Your task to perform on an android device: Open the phone app and click the voicemail tab. Image 0: 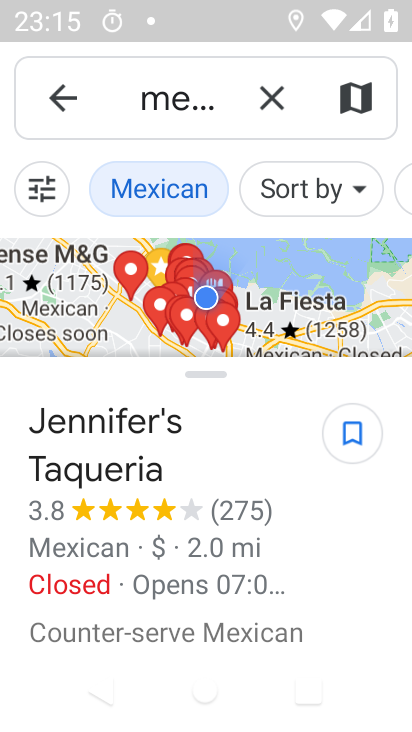
Step 0: press home button
Your task to perform on an android device: Open the phone app and click the voicemail tab. Image 1: 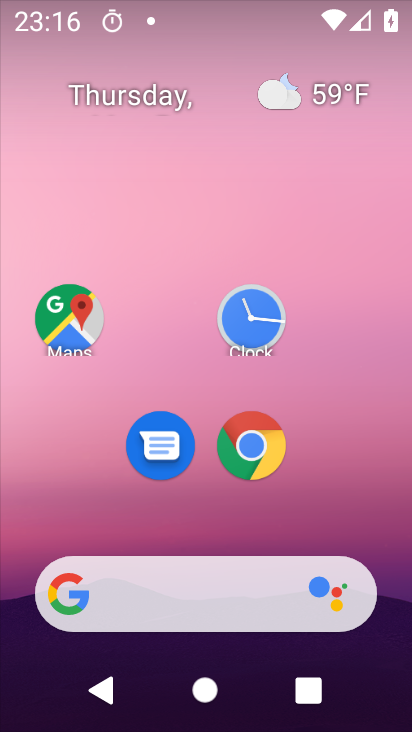
Step 1: click (359, 481)
Your task to perform on an android device: Open the phone app and click the voicemail tab. Image 2: 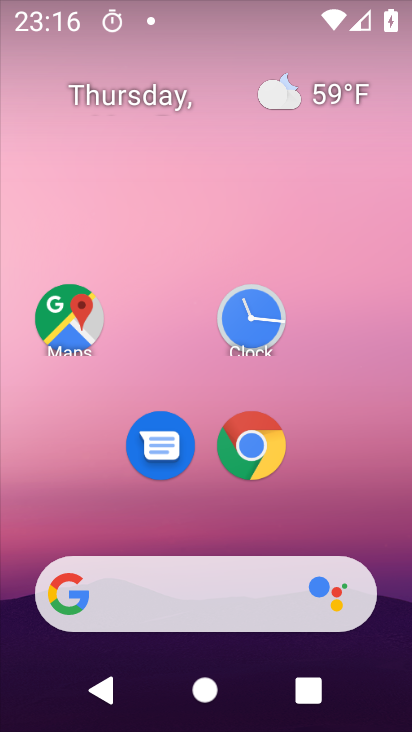
Step 2: drag from (185, 588) to (169, 17)
Your task to perform on an android device: Open the phone app and click the voicemail tab. Image 3: 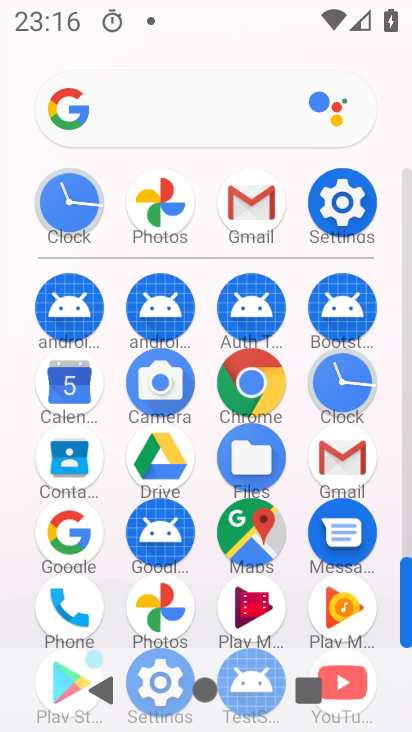
Step 3: drag from (224, 586) to (200, 349)
Your task to perform on an android device: Open the phone app and click the voicemail tab. Image 4: 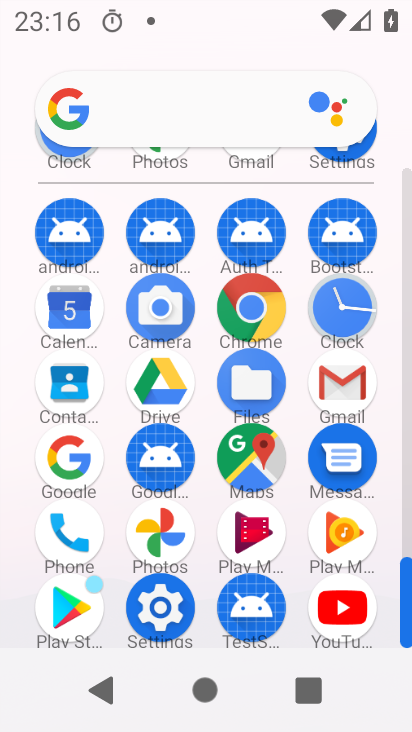
Step 4: click (80, 547)
Your task to perform on an android device: Open the phone app and click the voicemail tab. Image 5: 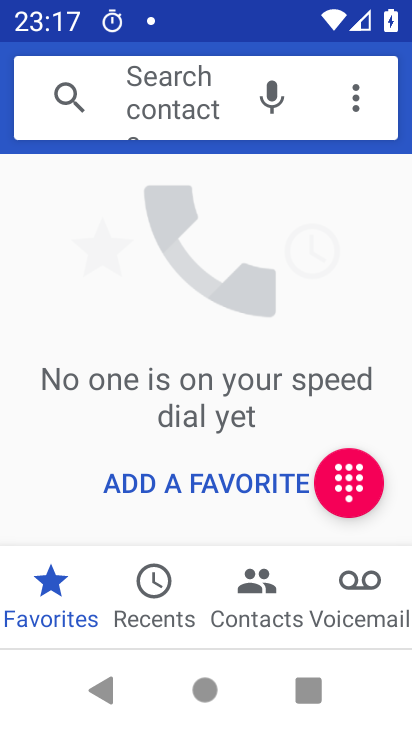
Step 5: click (349, 593)
Your task to perform on an android device: Open the phone app and click the voicemail tab. Image 6: 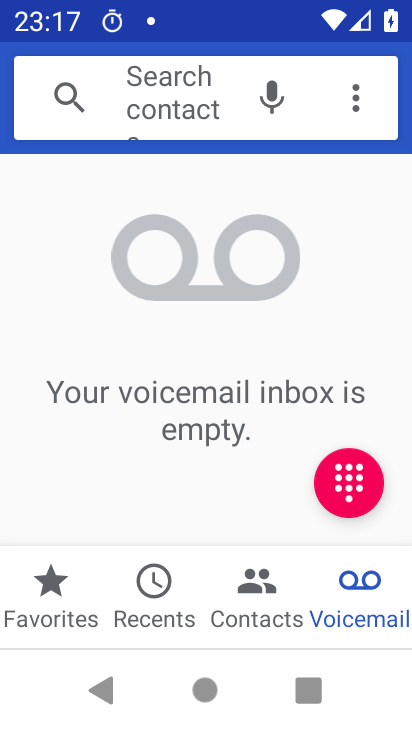
Step 6: task complete